Your task to perform on an android device: When is my next appointment? Image 0: 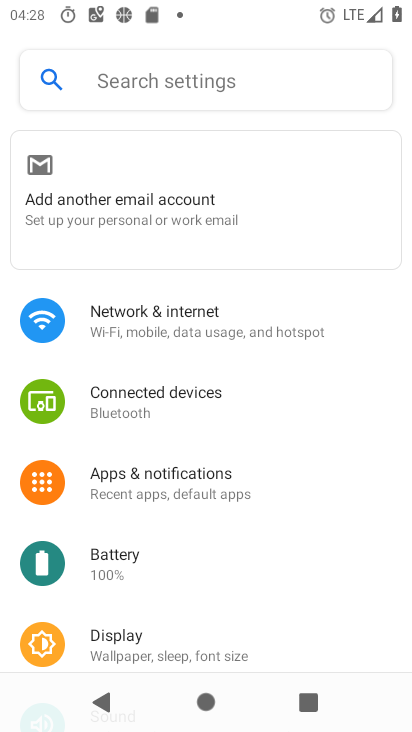
Step 0: press back button
Your task to perform on an android device: When is my next appointment? Image 1: 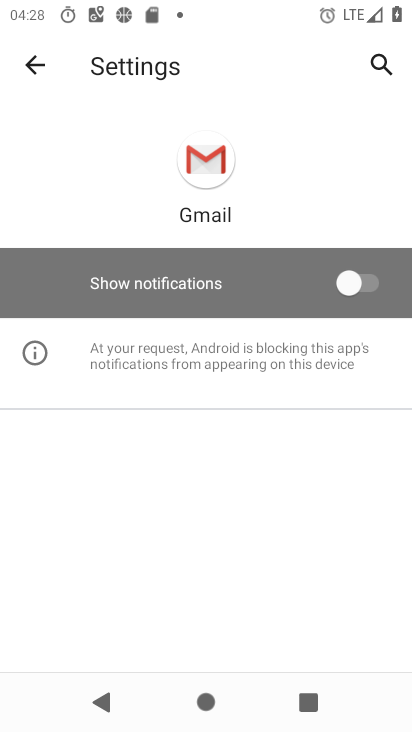
Step 1: press home button
Your task to perform on an android device: When is my next appointment? Image 2: 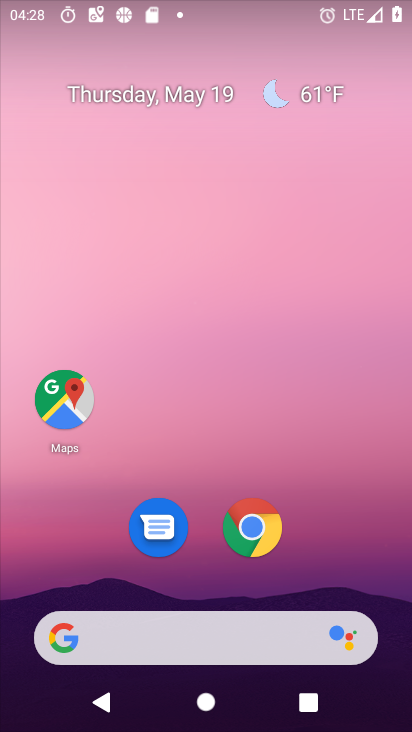
Step 2: drag from (188, 577) to (351, 0)
Your task to perform on an android device: When is my next appointment? Image 3: 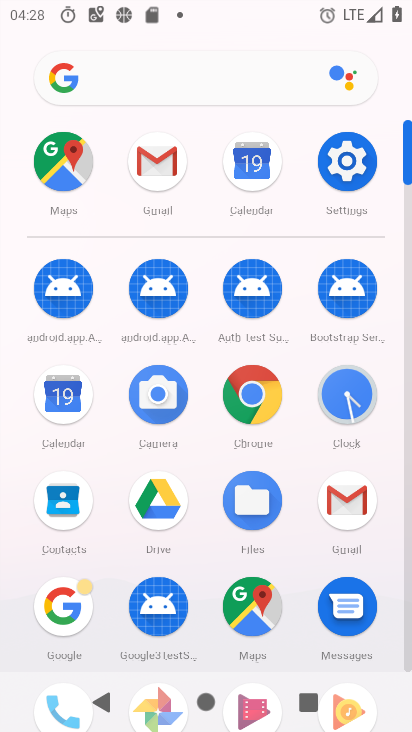
Step 3: click (80, 405)
Your task to perform on an android device: When is my next appointment? Image 4: 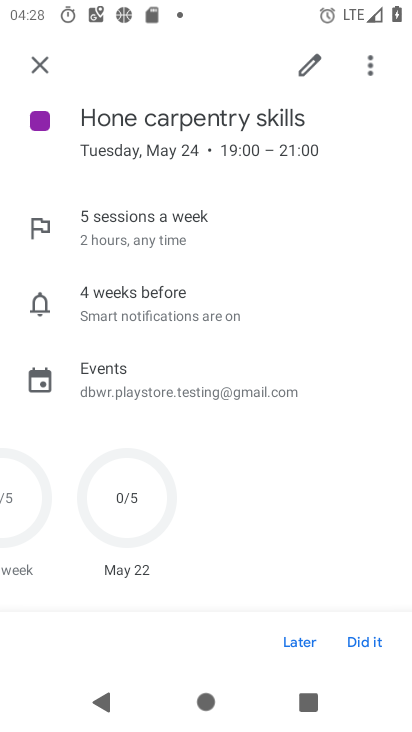
Step 4: click (34, 55)
Your task to perform on an android device: When is my next appointment? Image 5: 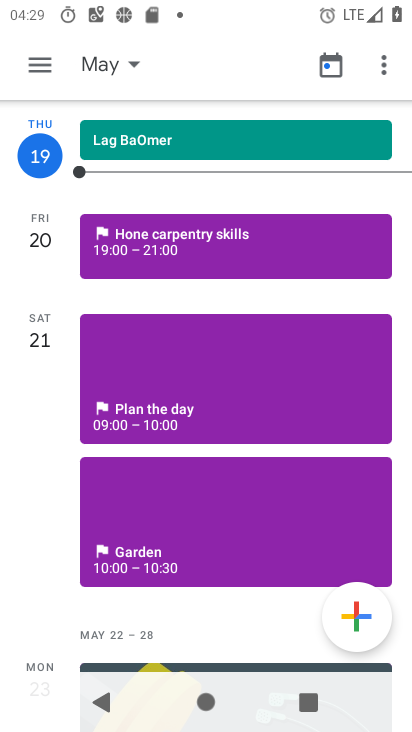
Step 5: task complete